Your task to perform on an android device: open app "Spotify: Music and Podcasts" (install if not already installed) Image 0: 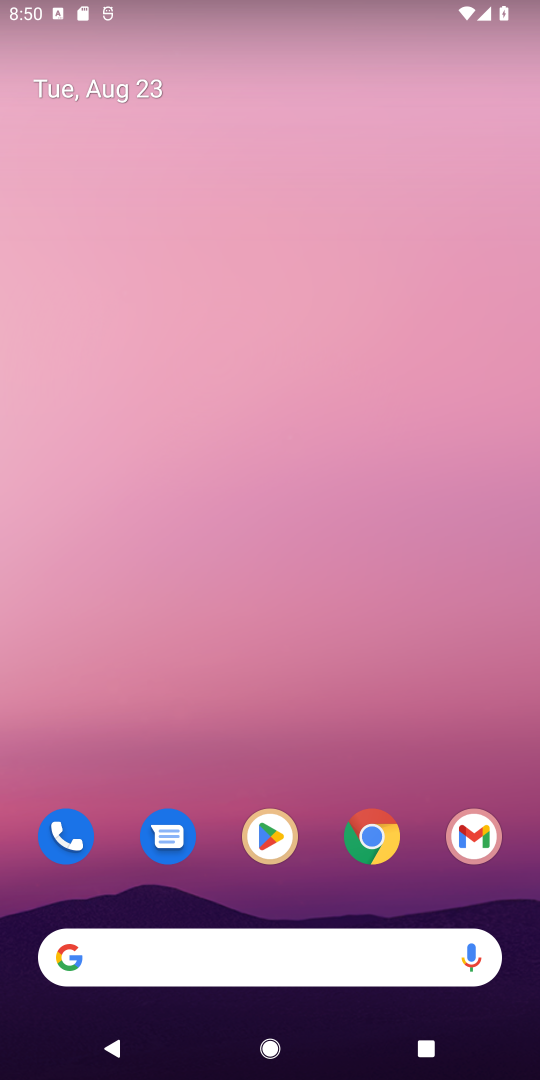
Step 0: click (273, 833)
Your task to perform on an android device: open app "Spotify: Music and Podcasts" (install if not already installed) Image 1: 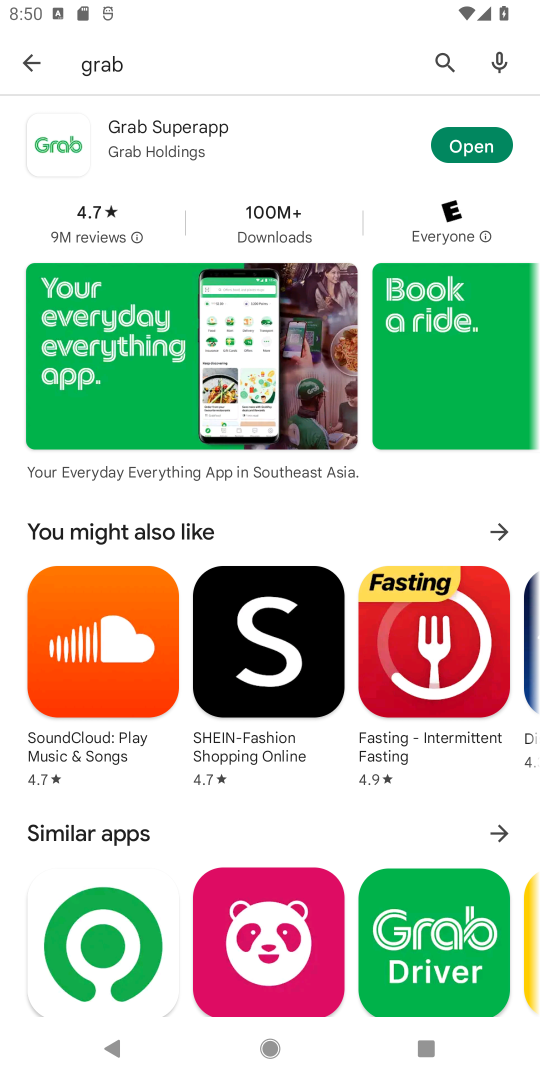
Step 1: click (443, 63)
Your task to perform on an android device: open app "Spotify: Music and Podcasts" (install if not already installed) Image 2: 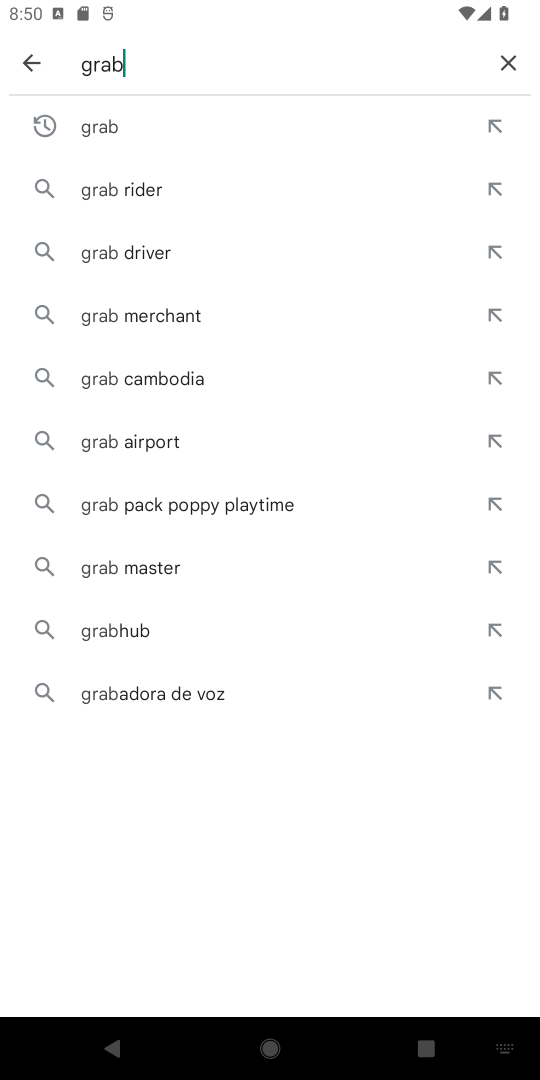
Step 2: click (505, 64)
Your task to perform on an android device: open app "Spotify: Music and Podcasts" (install if not already installed) Image 3: 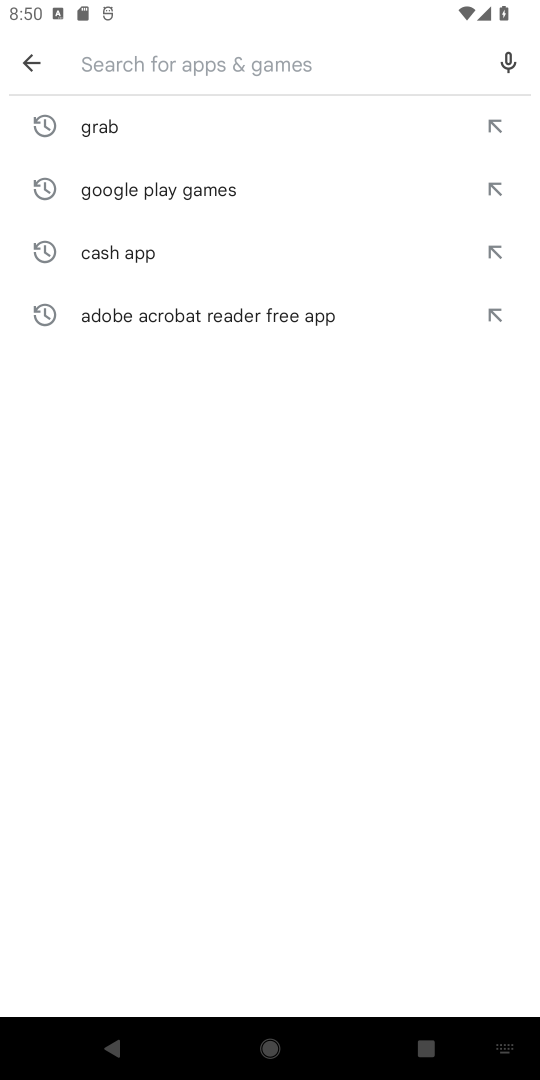
Step 3: type "Spotify: Music and Podcasts"
Your task to perform on an android device: open app "Spotify: Music and Podcasts" (install if not already installed) Image 4: 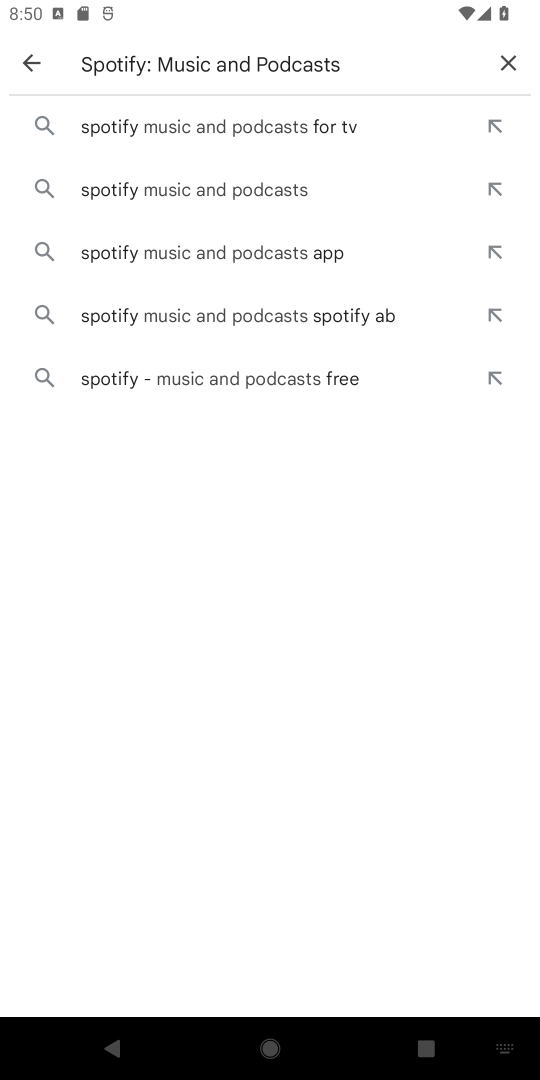
Step 4: click (186, 129)
Your task to perform on an android device: open app "Spotify: Music and Podcasts" (install if not already installed) Image 5: 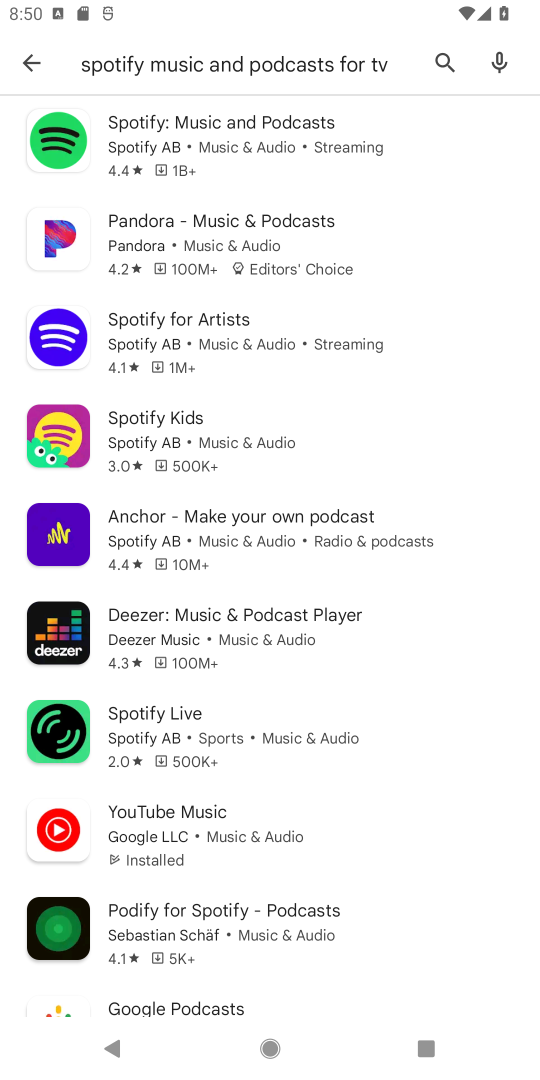
Step 5: click (222, 141)
Your task to perform on an android device: open app "Spotify: Music and Podcasts" (install if not already installed) Image 6: 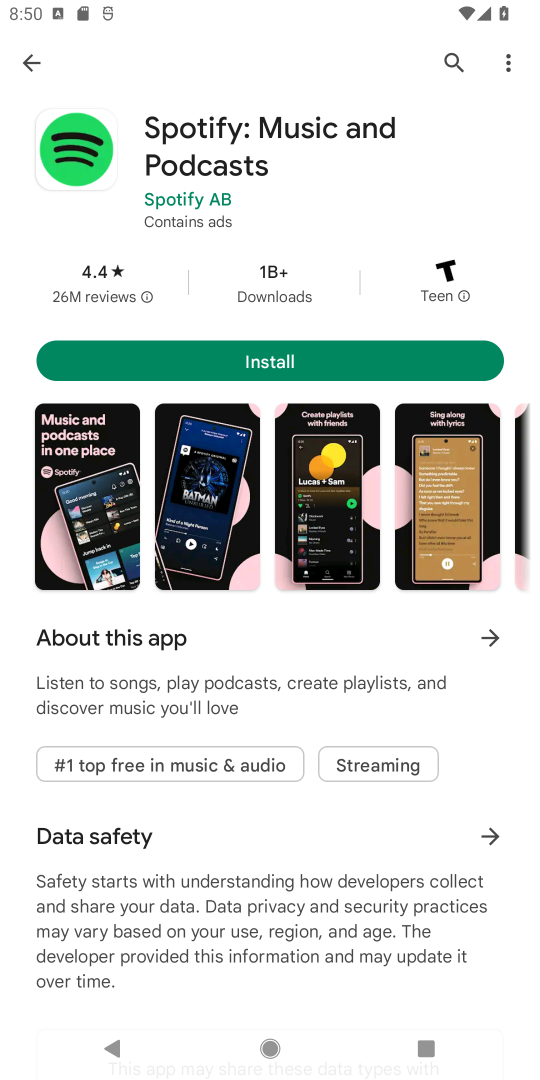
Step 6: click (295, 356)
Your task to perform on an android device: open app "Spotify: Music and Podcasts" (install if not already installed) Image 7: 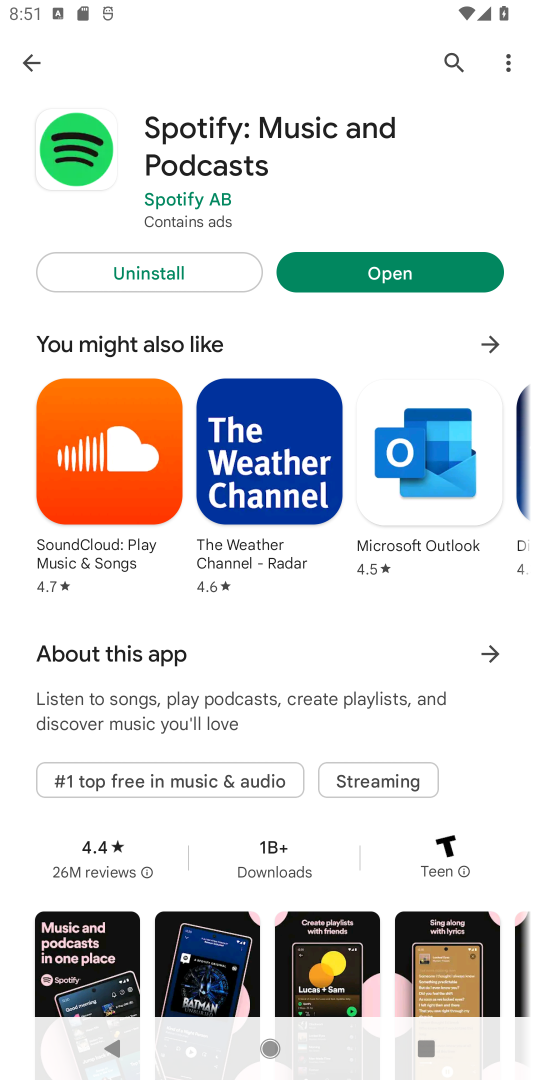
Step 7: click (448, 266)
Your task to perform on an android device: open app "Spotify: Music and Podcasts" (install if not already installed) Image 8: 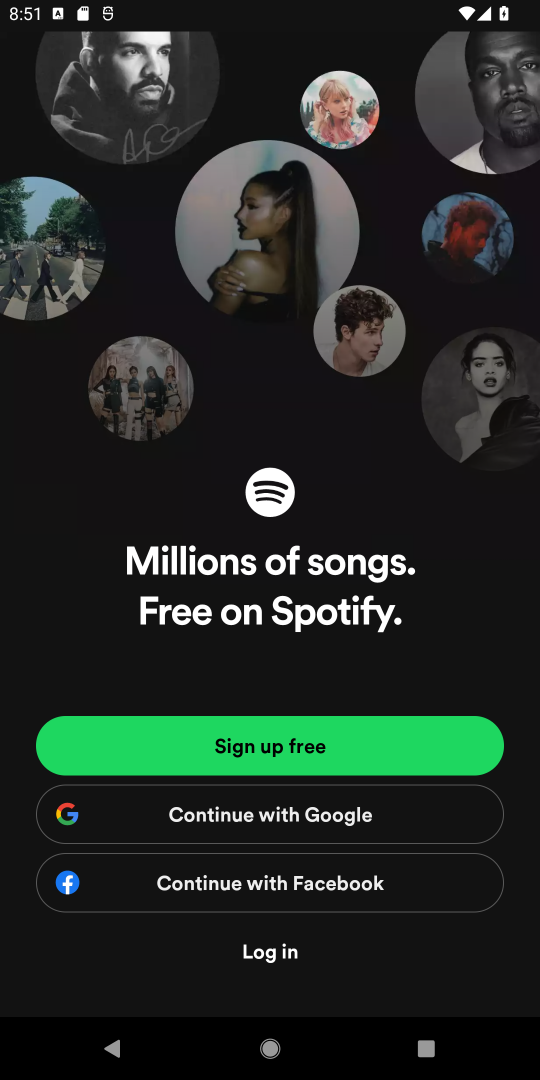
Step 8: task complete